Your task to perform on an android device: check google app version Image 0: 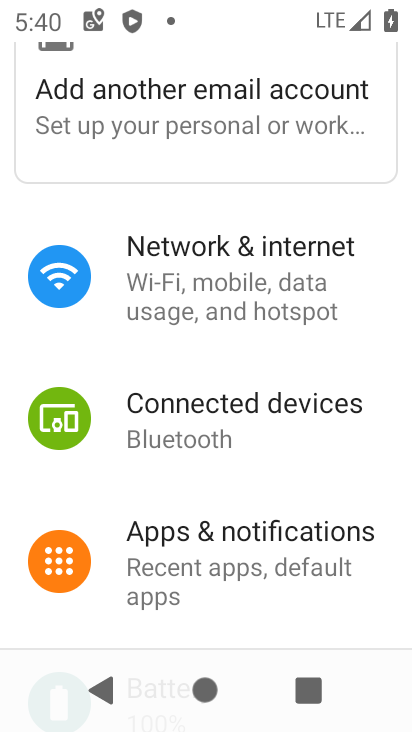
Step 0: press home button
Your task to perform on an android device: check google app version Image 1: 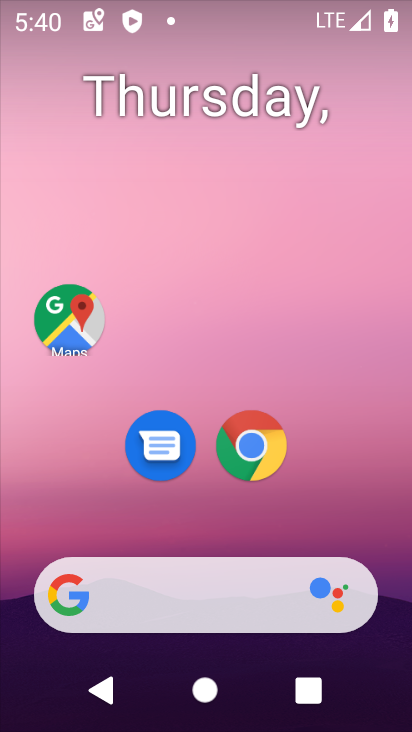
Step 1: drag from (309, 510) to (318, 93)
Your task to perform on an android device: check google app version Image 2: 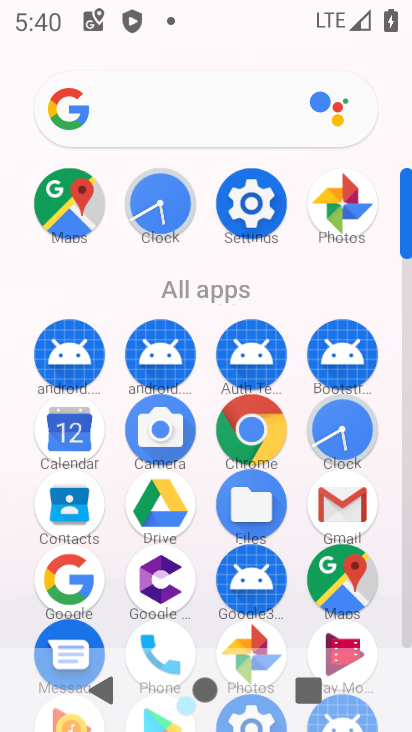
Step 2: click (78, 582)
Your task to perform on an android device: check google app version Image 3: 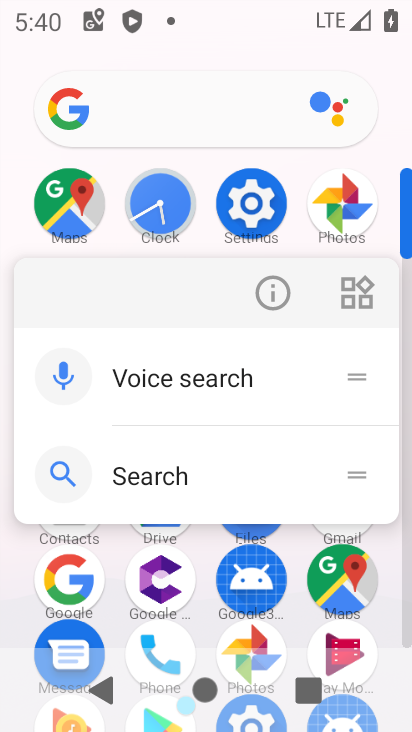
Step 3: click (268, 290)
Your task to perform on an android device: check google app version Image 4: 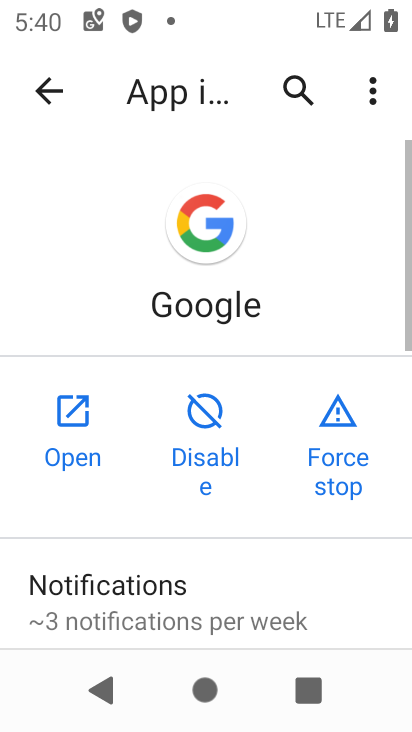
Step 4: drag from (265, 531) to (306, 242)
Your task to perform on an android device: check google app version Image 5: 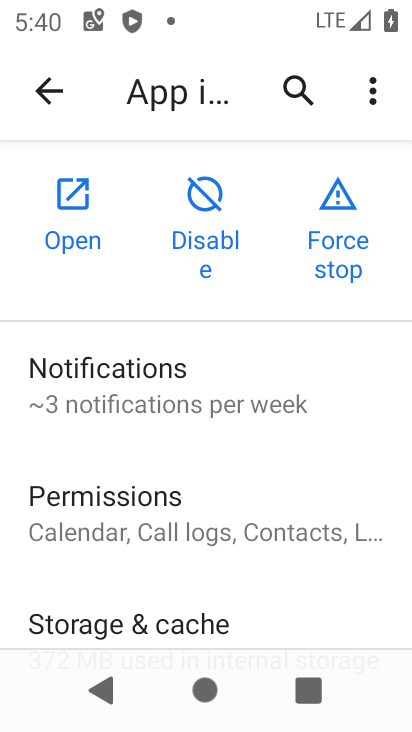
Step 5: drag from (288, 563) to (315, 223)
Your task to perform on an android device: check google app version Image 6: 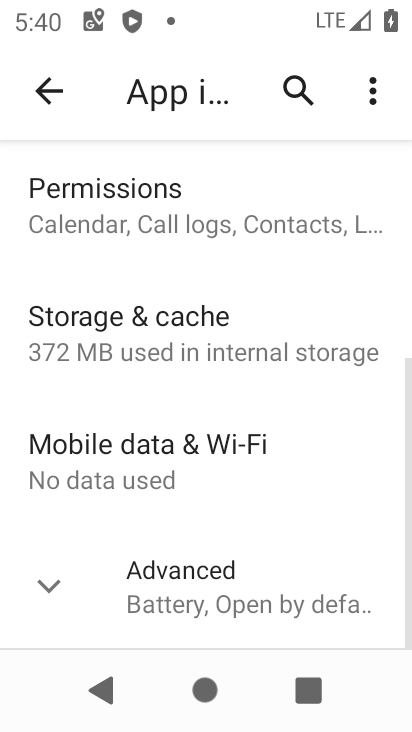
Step 6: drag from (304, 529) to (330, 179)
Your task to perform on an android device: check google app version Image 7: 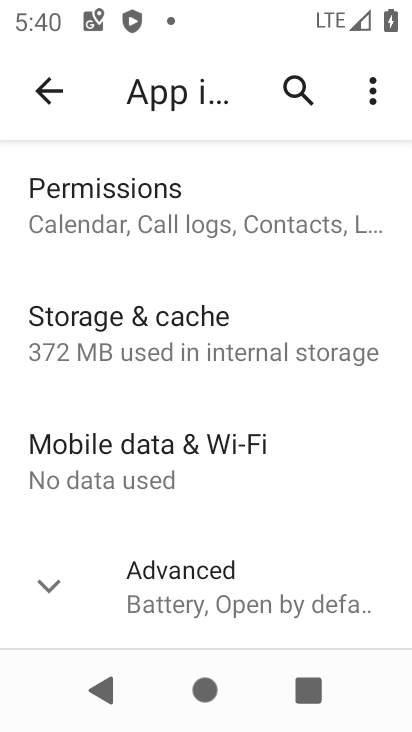
Step 7: click (271, 592)
Your task to perform on an android device: check google app version Image 8: 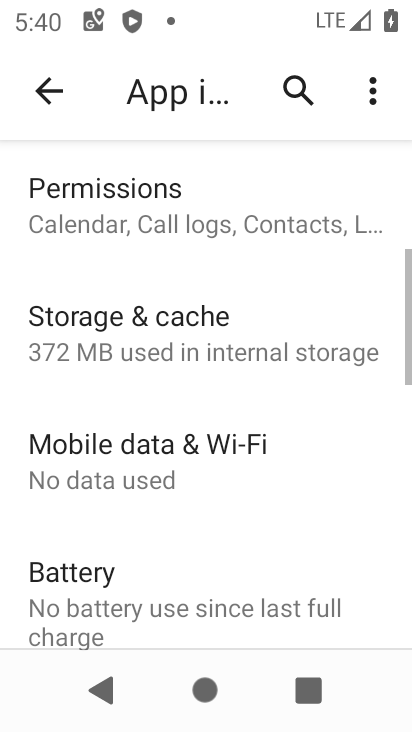
Step 8: drag from (274, 550) to (342, 242)
Your task to perform on an android device: check google app version Image 9: 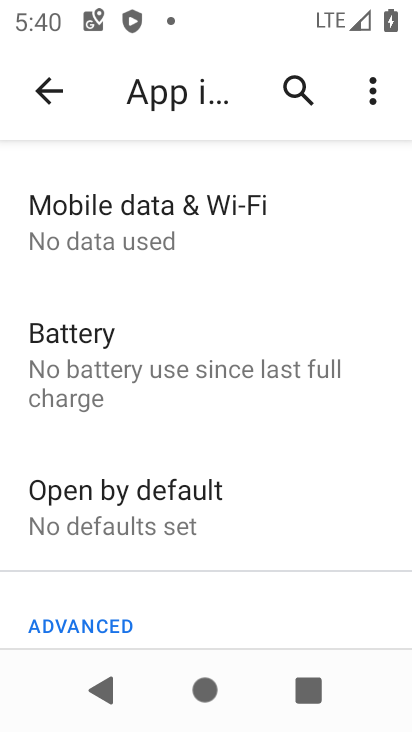
Step 9: drag from (278, 557) to (294, 314)
Your task to perform on an android device: check google app version Image 10: 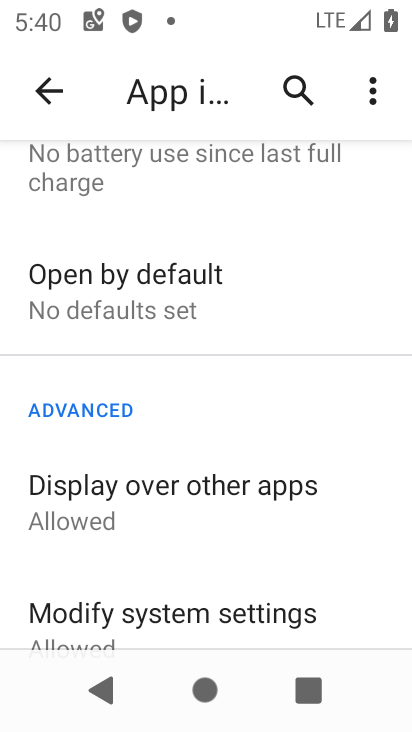
Step 10: click (49, 85)
Your task to perform on an android device: check google app version Image 11: 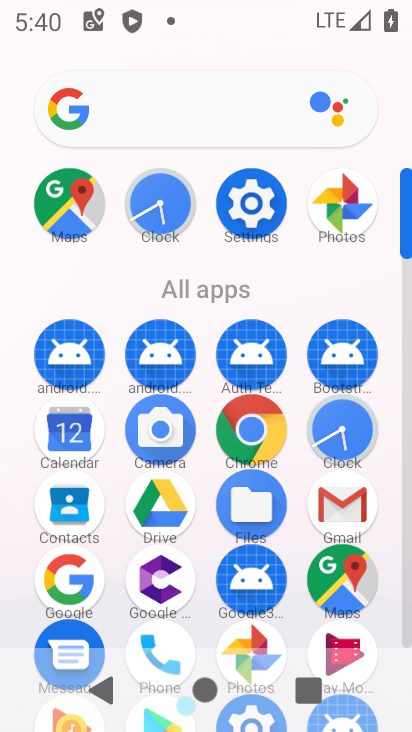
Step 11: click (70, 572)
Your task to perform on an android device: check google app version Image 12: 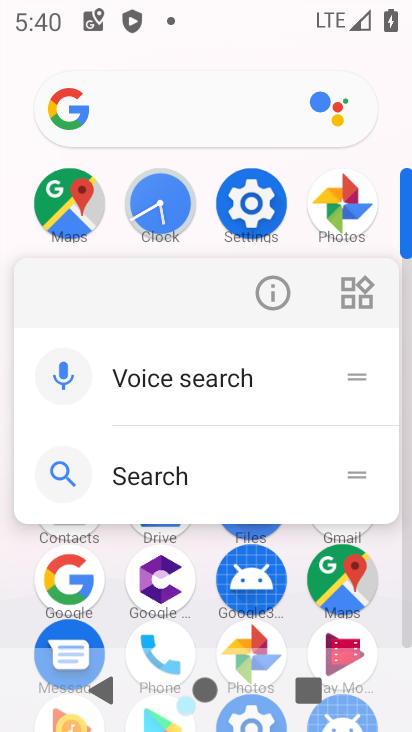
Step 12: click (278, 288)
Your task to perform on an android device: check google app version Image 13: 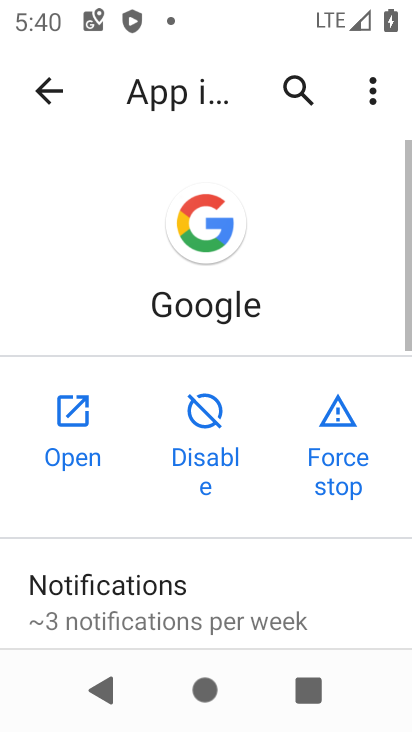
Step 13: drag from (267, 568) to (291, 141)
Your task to perform on an android device: check google app version Image 14: 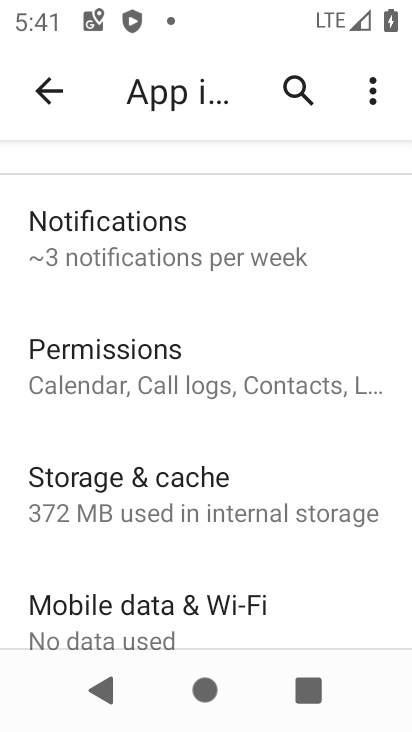
Step 14: drag from (225, 543) to (308, 157)
Your task to perform on an android device: check google app version Image 15: 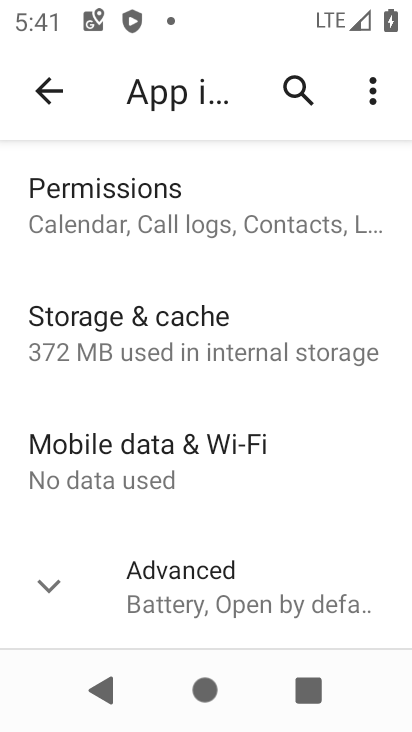
Step 15: click (209, 601)
Your task to perform on an android device: check google app version Image 16: 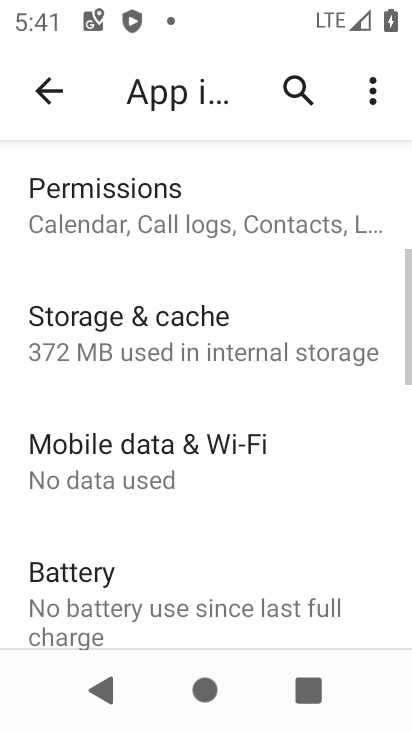
Step 16: task complete